Your task to perform on an android device: toggle wifi Image 0: 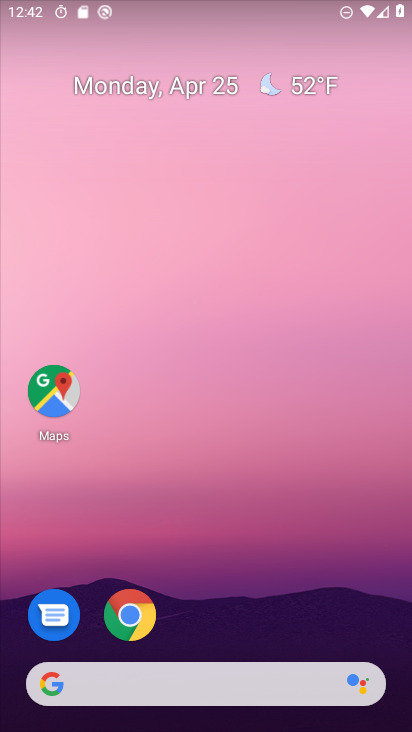
Step 0: drag from (234, 652) to (229, 5)
Your task to perform on an android device: toggle wifi Image 1: 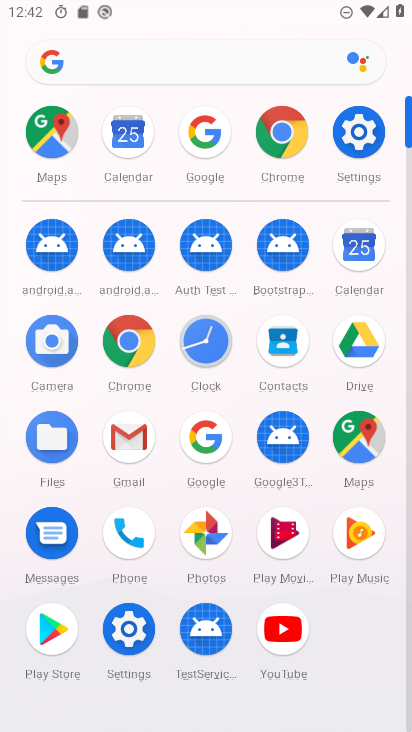
Step 1: click (353, 146)
Your task to perform on an android device: toggle wifi Image 2: 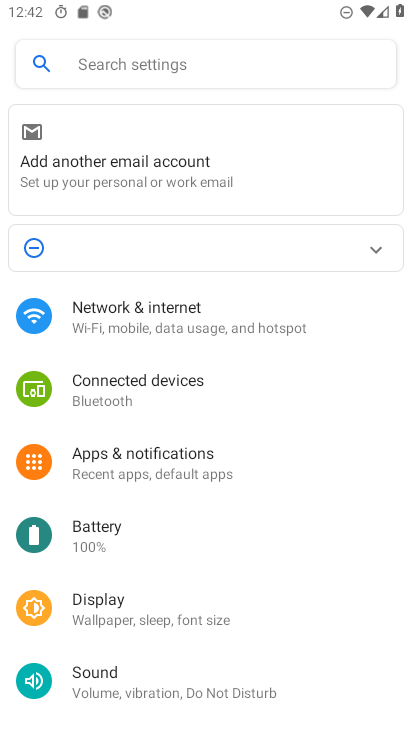
Step 2: click (137, 329)
Your task to perform on an android device: toggle wifi Image 3: 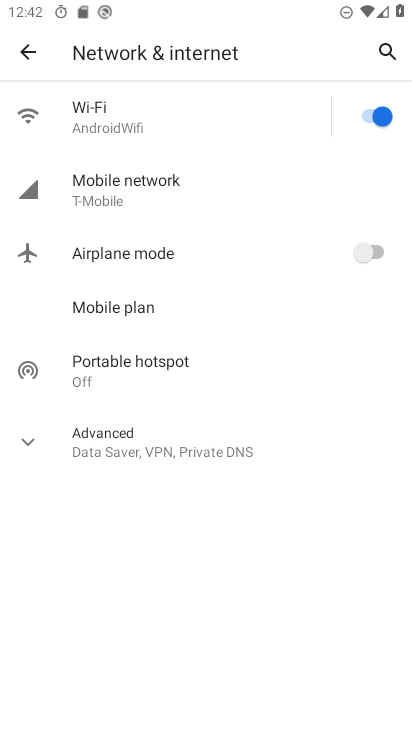
Step 3: click (368, 109)
Your task to perform on an android device: toggle wifi Image 4: 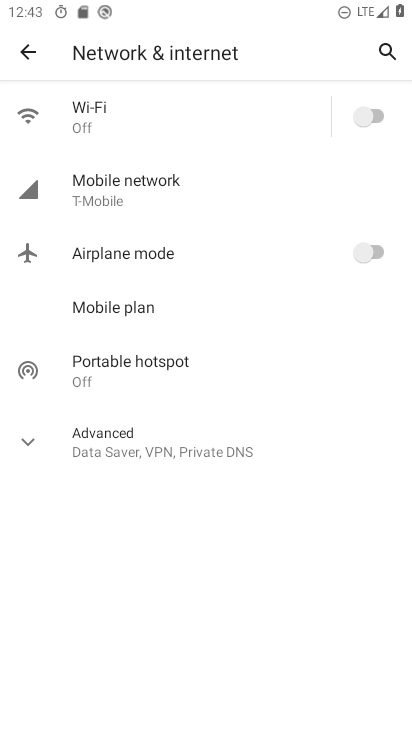
Step 4: task complete